Your task to perform on an android device: turn off airplane mode Image 0: 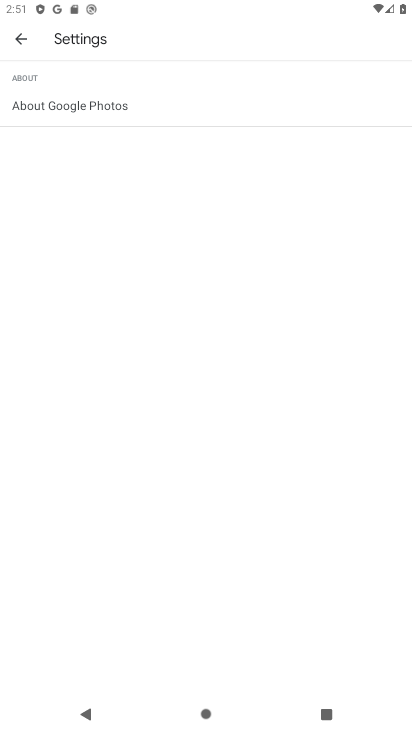
Step 0: press home button
Your task to perform on an android device: turn off airplane mode Image 1: 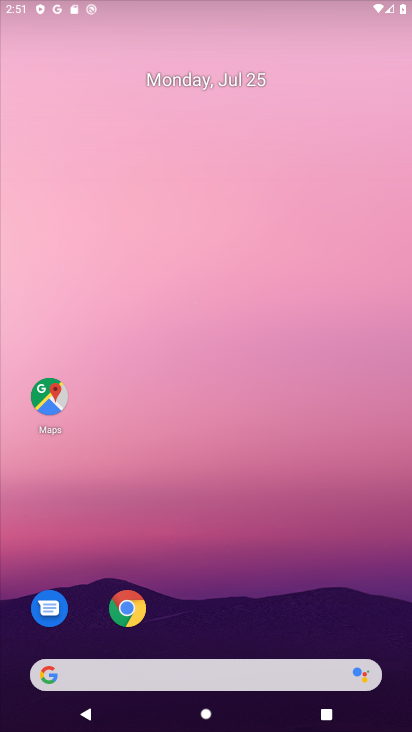
Step 1: task complete